Your task to perform on an android device: Show me productivity apps on the Play Store Image 0: 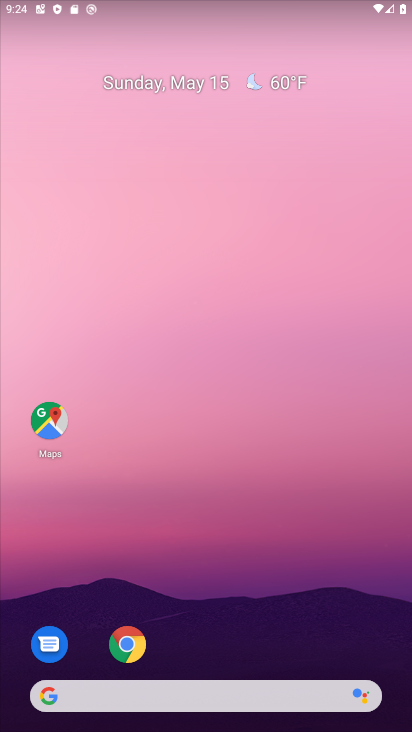
Step 0: drag from (216, 640) to (372, 335)
Your task to perform on an android device: Show me productivity apps on the Play Store Image 1: 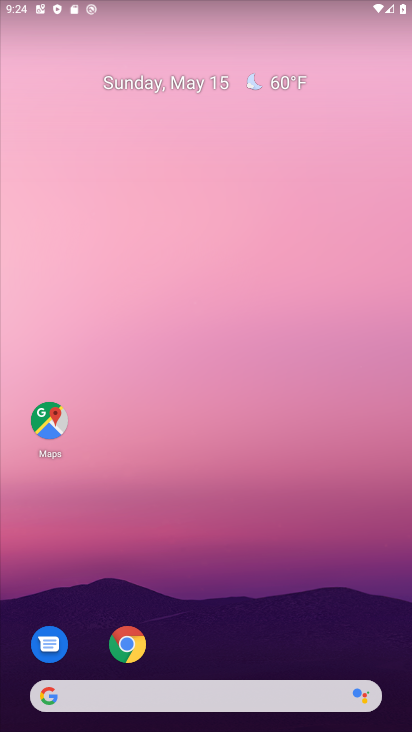
Step 1: drag from (238, 671) to (279, 362)
Your task to perform on an android device: Show me productivity apps on the Play Store Image 2: 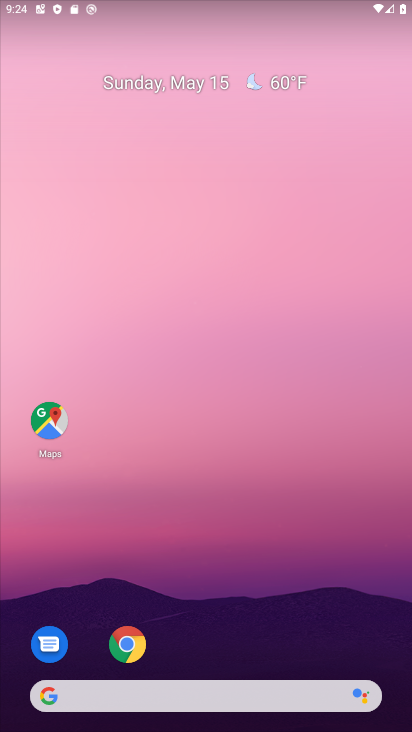
Step 2: drag from (217, 626) to (241, 256)
Your task to perform on an android device: Show me productivity apps on the Play Store Image 3: 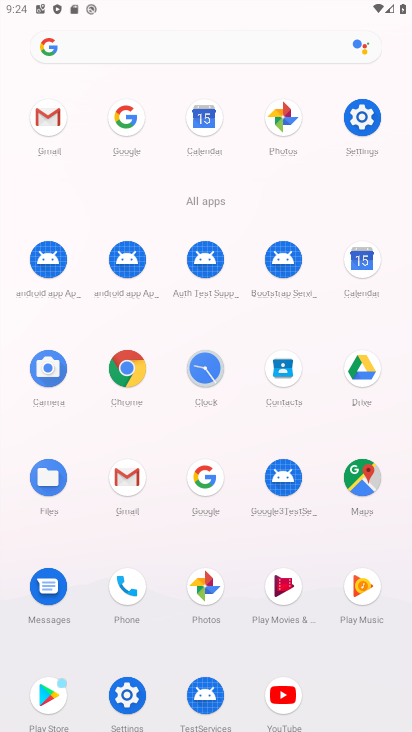
Step 3: click (41, 686)
Your task to perform on an android device: Show me productivity apps on the Play Store Image 4: 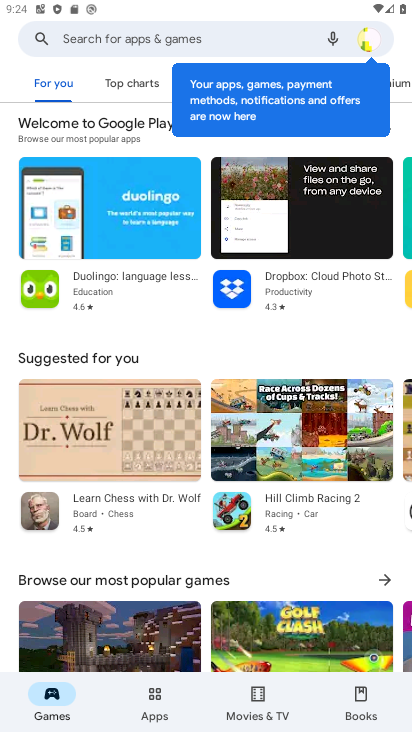
Step 4: drag from (202, 640) to (243, 283)
Your task to perform on an android device: Show me productivity apps on the Play Store Image 5: 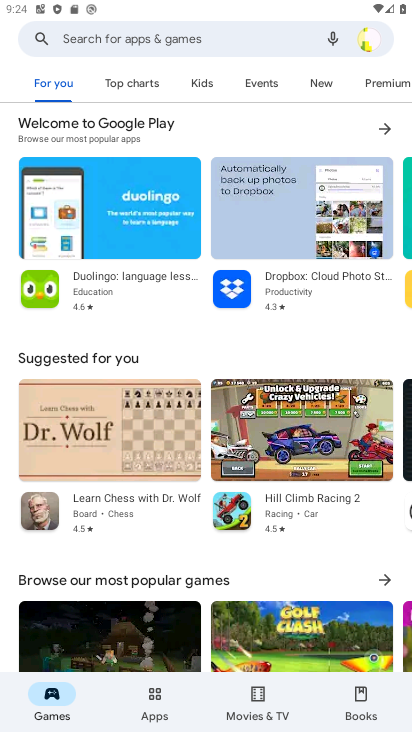
Step 5: click (159, 704)
Your task to perform on an android device: Show me productivity apps on the Play Store Image 6: 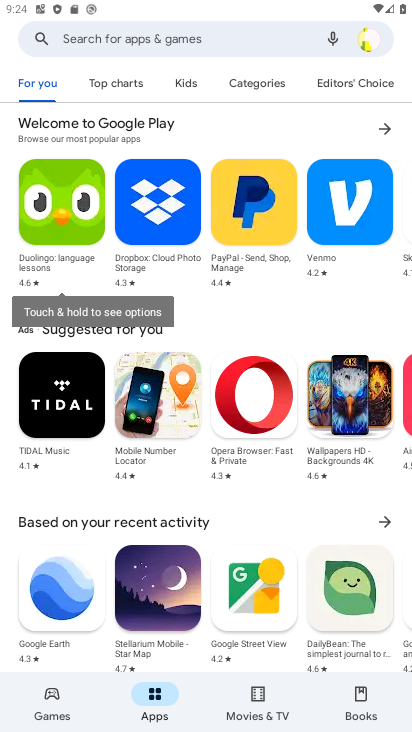
Step 6: task complete